Your task to perform on an android device: Search for seafood restaurants on Google Maps Image 0: 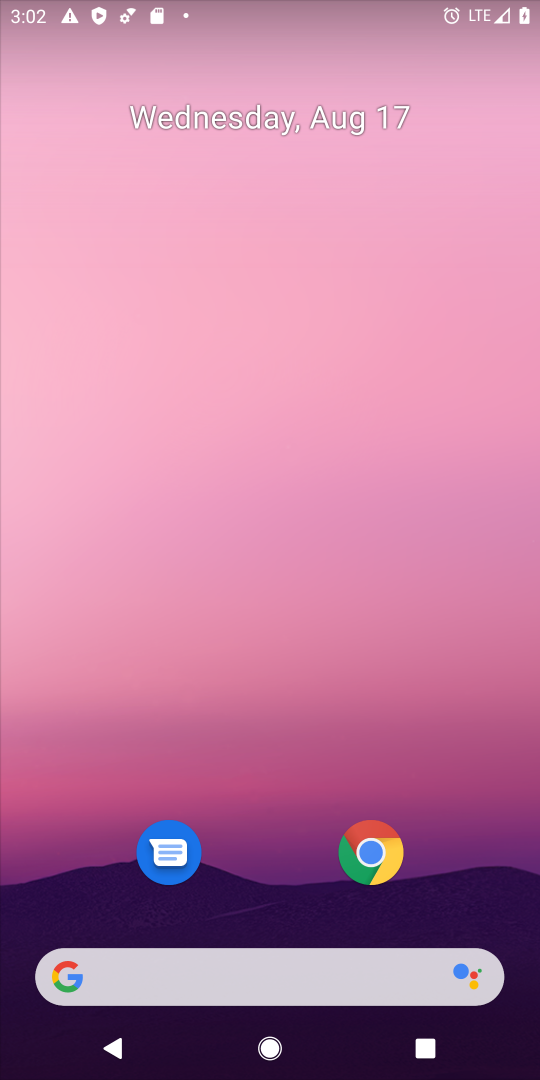
Step 0: drag from (300, 901) to (218, 179)
Your task to perform on an android device: Search for seafood restaurants on Google Maps Image 1: 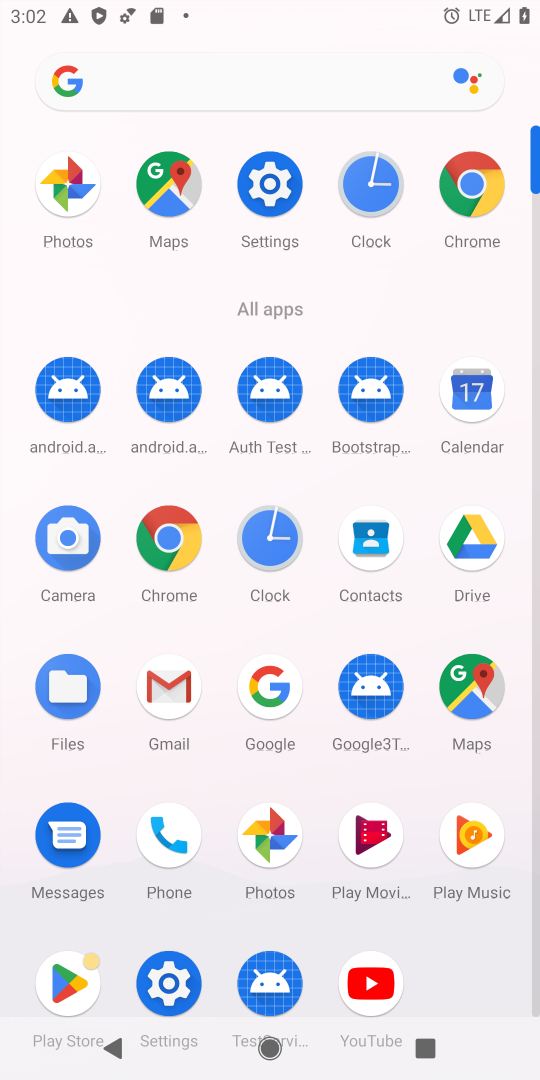
Step 1: click (479, 698)
Your task to perform on an android device: Search for seafood restaurants on Google Maps Image 2: 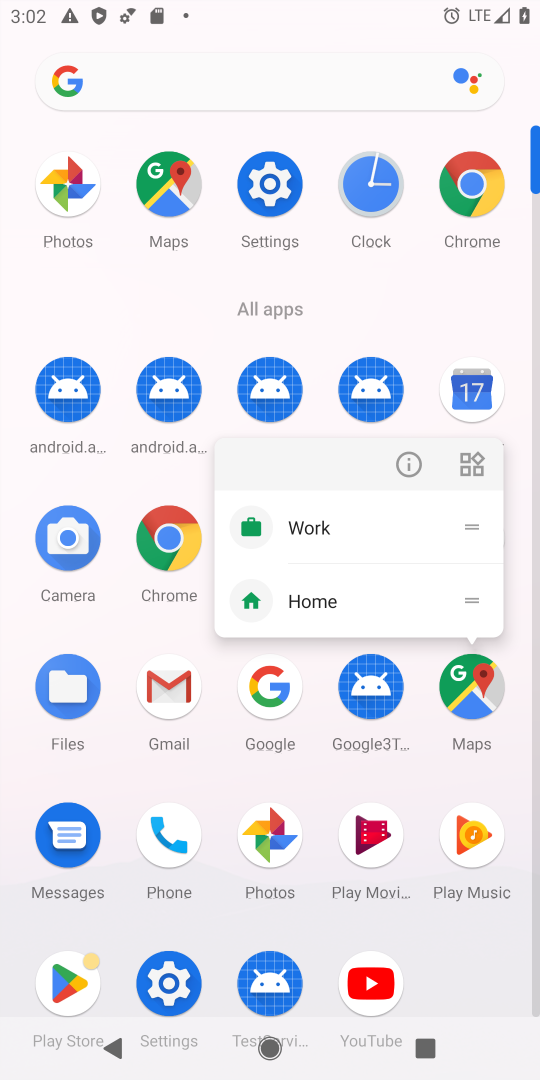
Step 2: click (476, 691)
Your task to perform on an android device: Search for seafood restaurants on Google Maps Image 3: 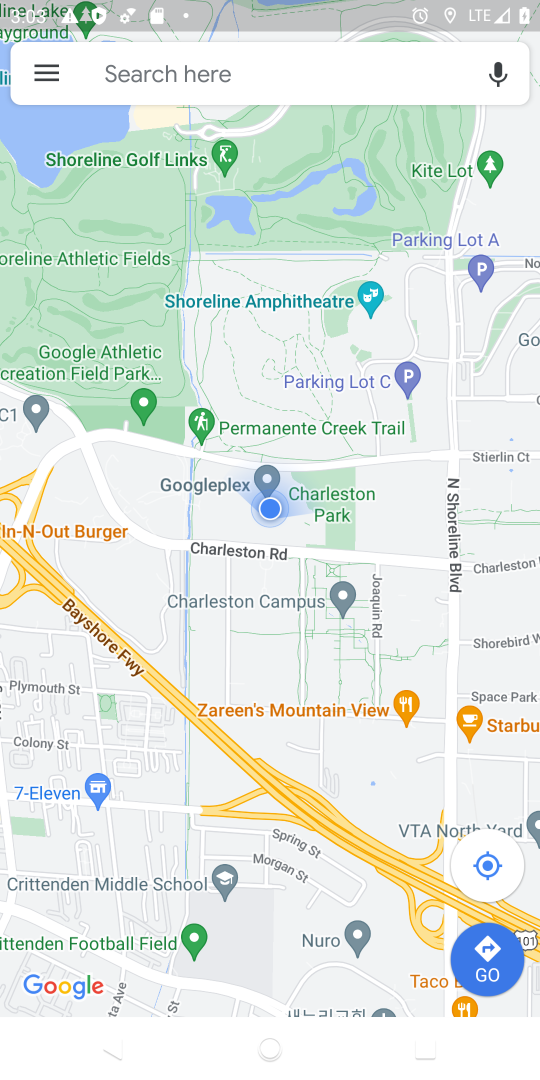
Step 3: click (270, 77)
Your task to perform on an android device: Search for seafood restaurants on Google Maps Image 4: 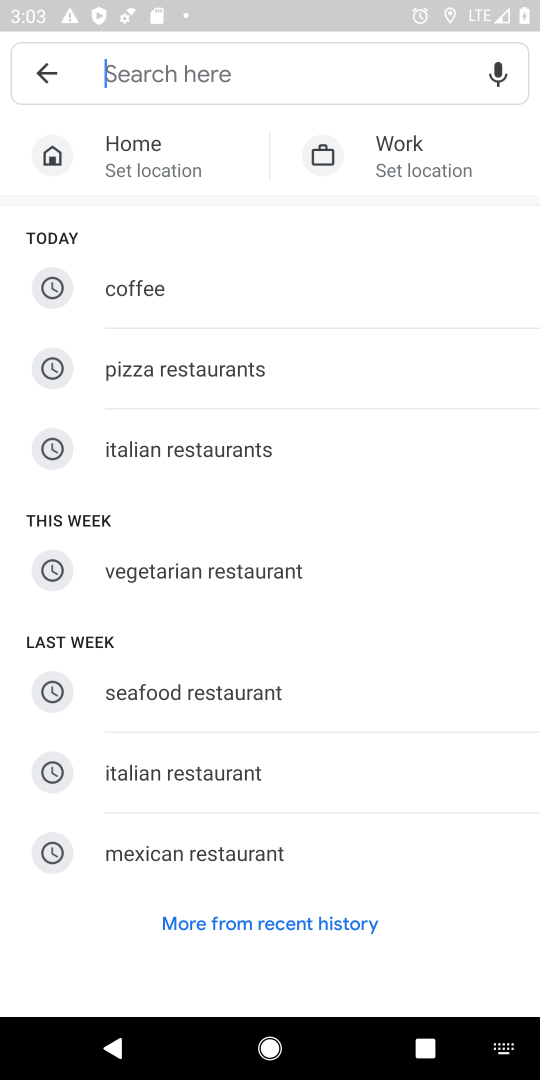
Step 4: type "seafood restaurants"
Your task to perform on an android device: Search for seafood restaurants on Google Maps Image 5: 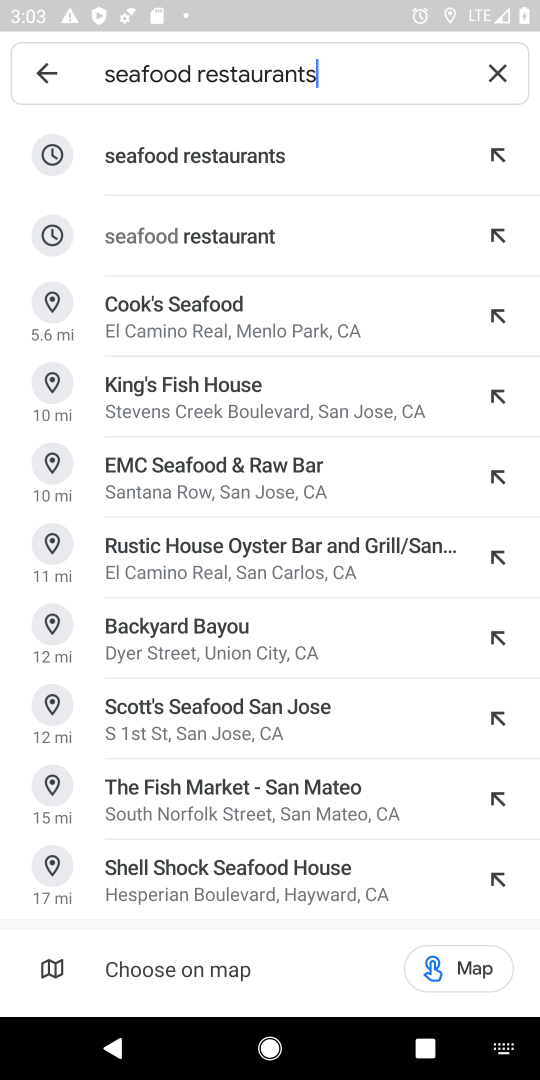
Step 5: click (354, 154)
Your task to perform on an android device: Search for seafood restaurants on Google Maps Image 6: 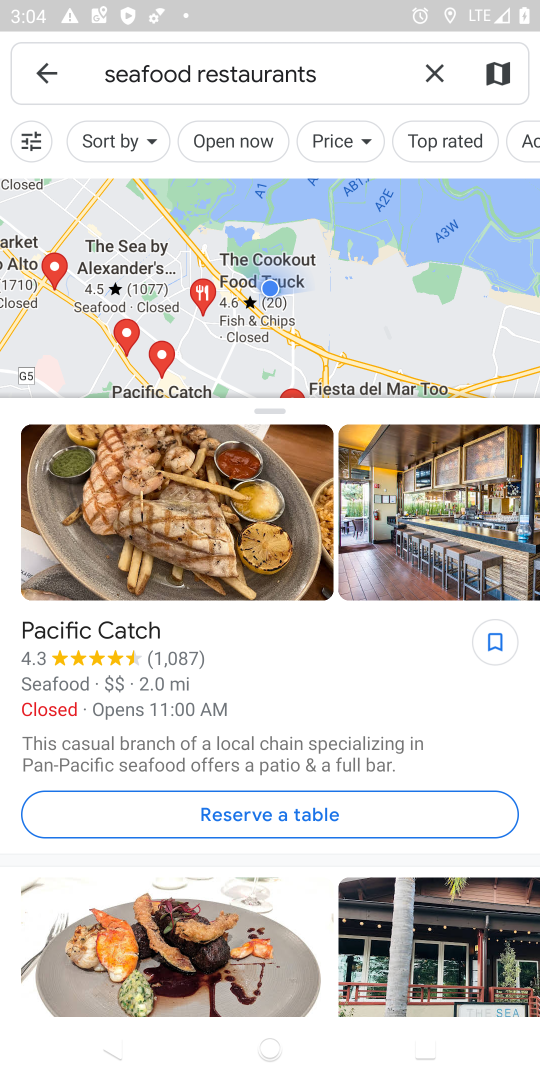
Step 6: task complete